Your task to perform on an android device: Open the web browser Image 0: 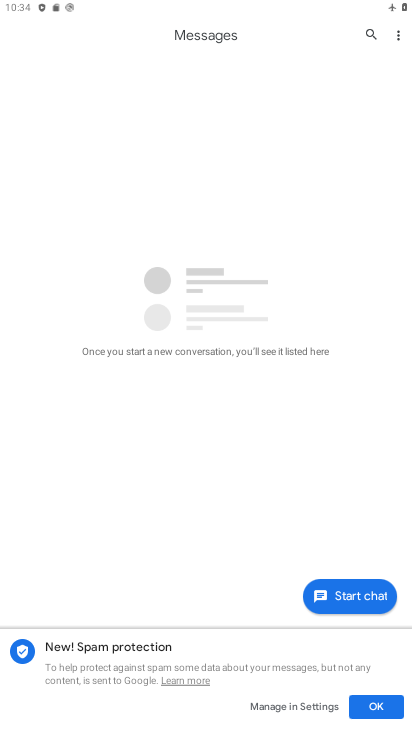
Step 0: press back button
Your task to perform on an android device: Open the web browser Image 1: 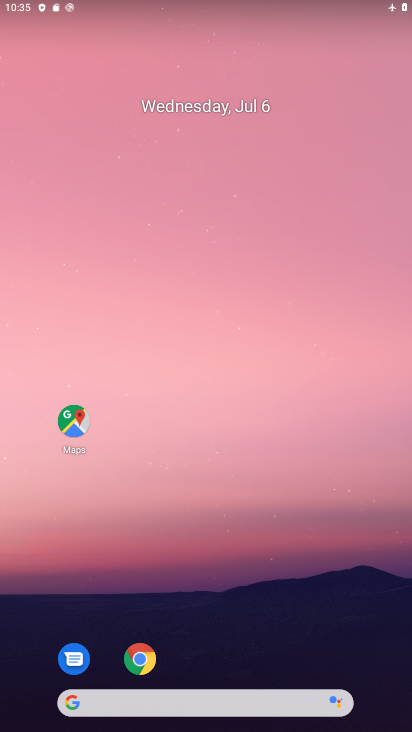
Step 1: click (140, 658)
Your task to perform on an android device: Open the web browser Image 2: 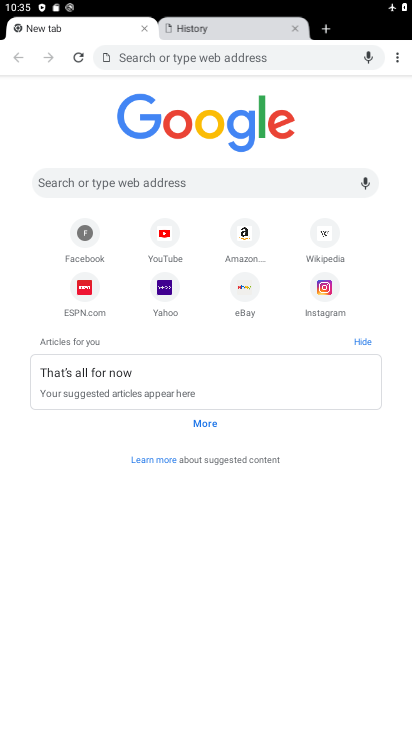
Step 2: task complete